Your task to perform on an android device: see creations saved in the google photos Image 0: 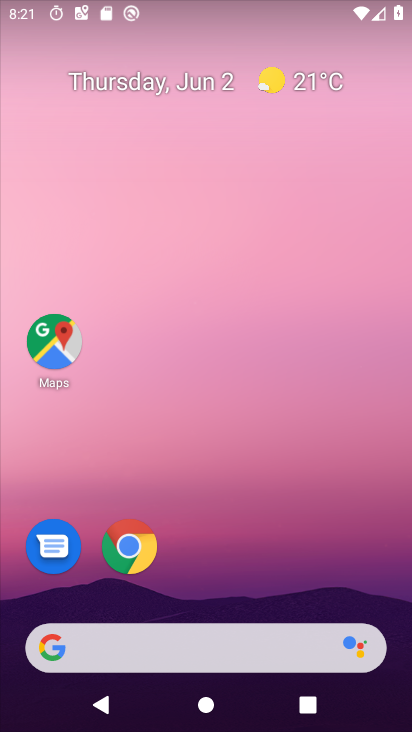
Step 0: drag from (325, 581) to (298, 309)
Your task to perform on an android device: see creations saved in the google photos Image 1: 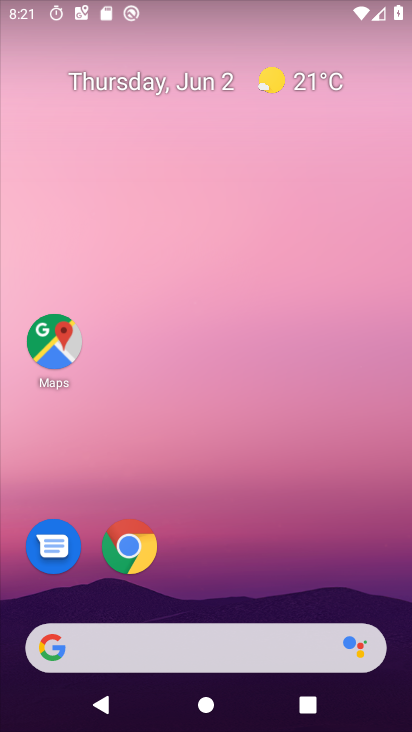
Step 1: drag from (305, 583) to (300, 224)
Your task to perform on an android device: see creations saved in the google photos Image 2: 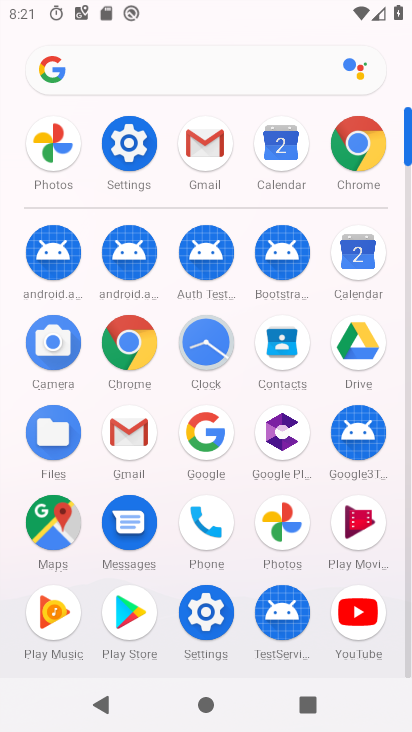
Step 2: click (287, 522)
Your task to perform on an android device: see creations saved in the google photos Image 3: 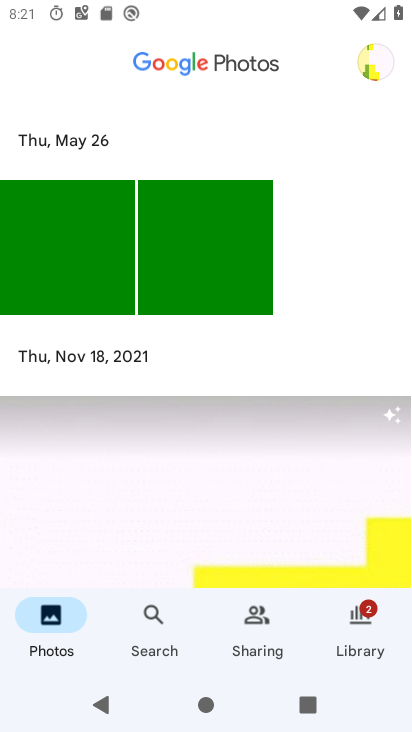
Step 3: click (154, 617)
Your task to perform on an android device: see creations saved in the google photos Image 4: 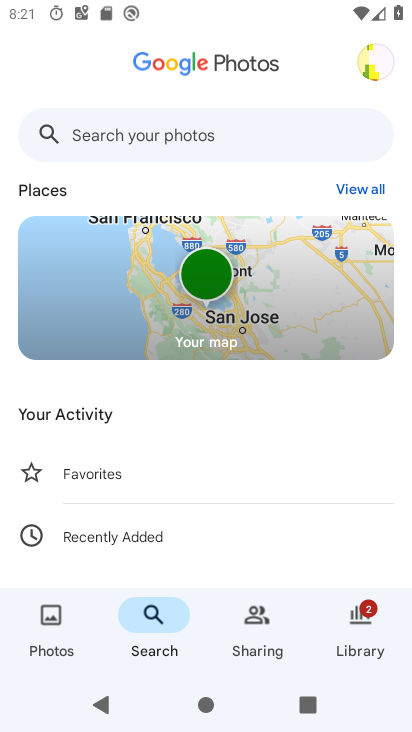
Step 4: click (161, 130)
Your task to perform on an android device: see creations saved in the google photos Image 5: 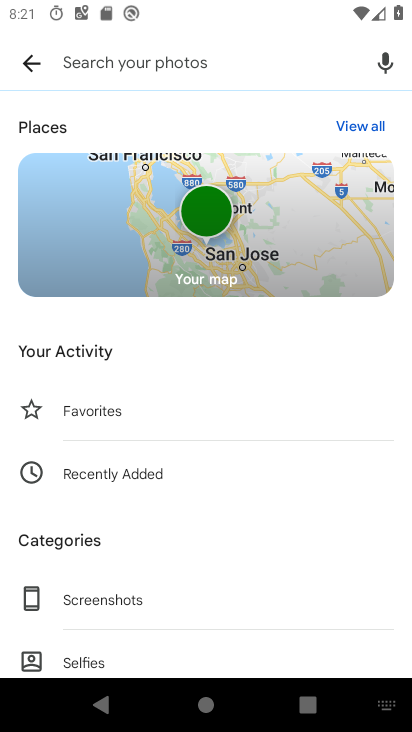
Step 5: type "creations "
Your task to perform on an android device: see creations saved in the google photos Image 6: 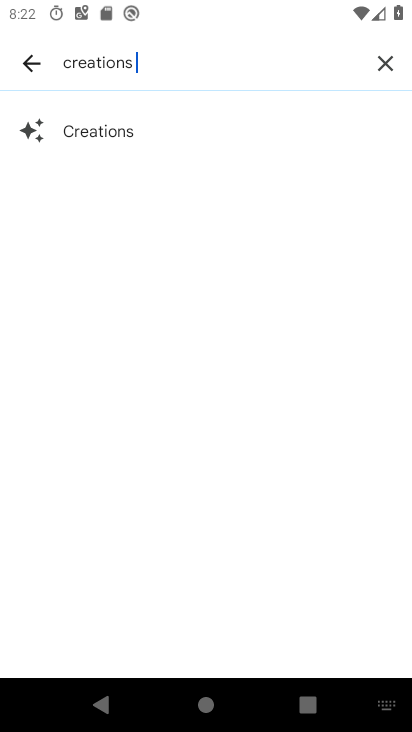
Step 6: click (105, 131)
Your task to perform on an android device: see creations saved in the google photos Image 7: 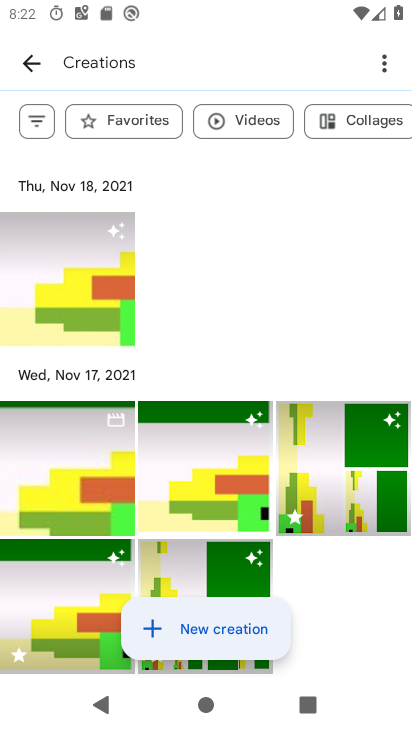
Step 7: task complete